Your task to perform on an android device: Search for pizza restaurants on Maps Image 0: 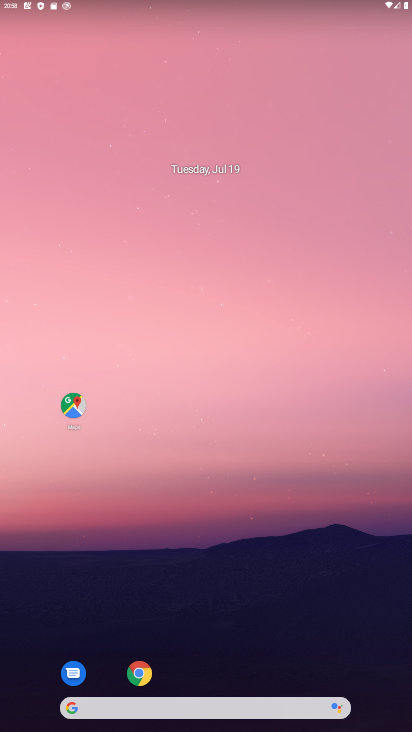
Step 0: click (77, 399)
Your task to perform on an android device: Search for pizza restaurants on Maps Image 1: 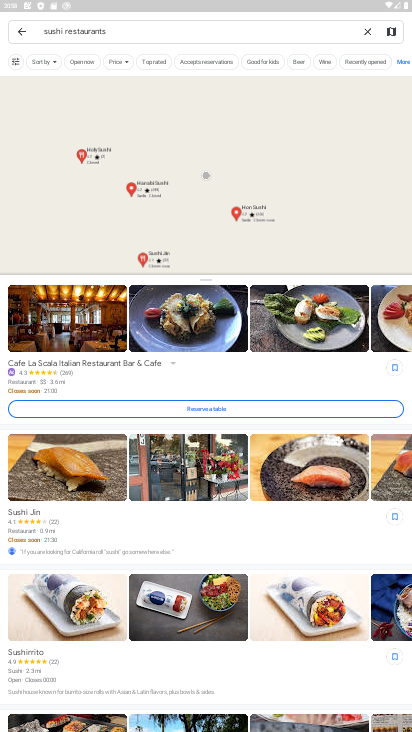
Step 1: click (115, 33)
Your task to perform on an android device: Search for pizza restaurants on Maps Image 2: 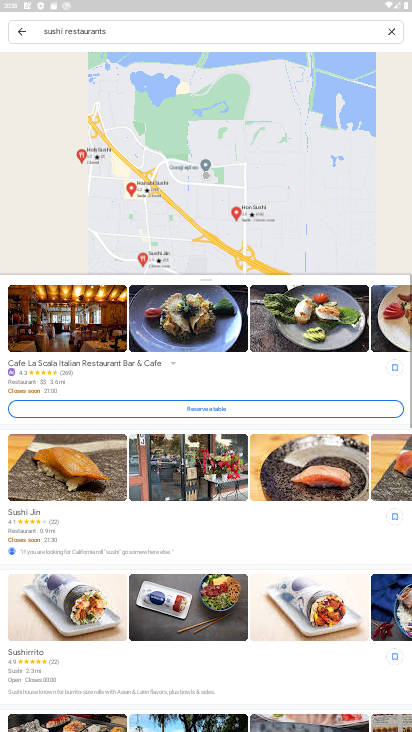
Step 2: click (56, 32)
Your task to perform on an android device: Search for pizza restaurants on Maps Image 3: 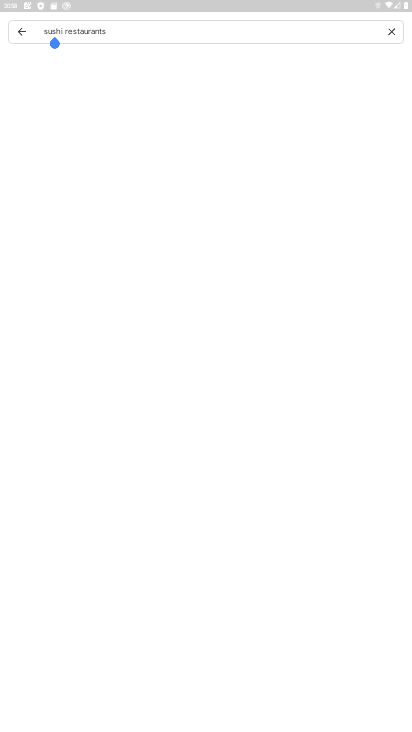
Step 3: click (55, 31)
Your task to perform on an android device: Search for pizza restaurants on Maps Image 4: 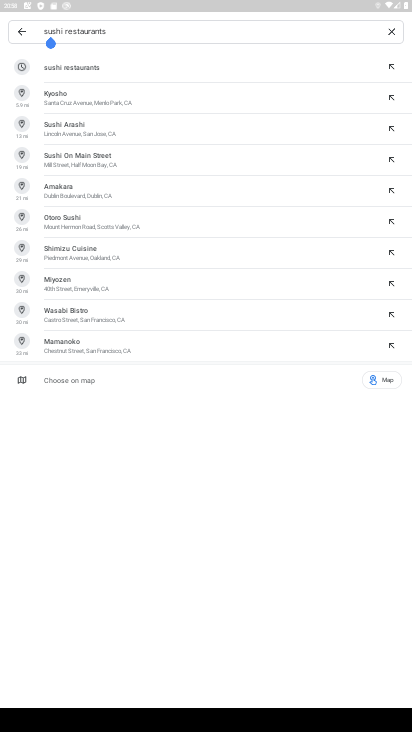
Step 4: click (52, 30)
Your task to perform on an android device: Search for pizza restaurants on Maps Image 5: 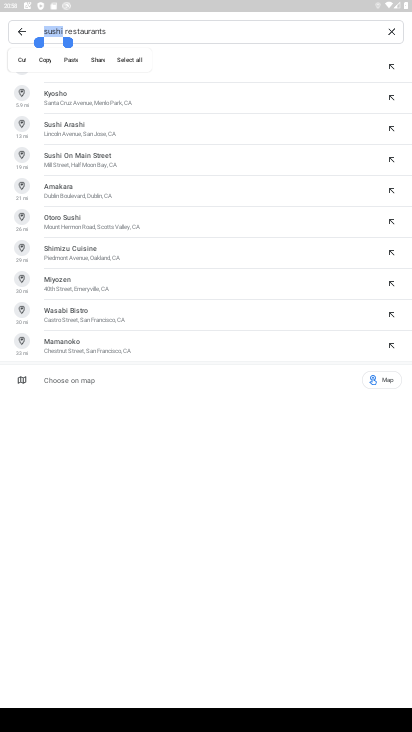
Step 5: type "Pizza"
Your task to perform on an android device: Search for pizza restaurants on Maps Image 6: 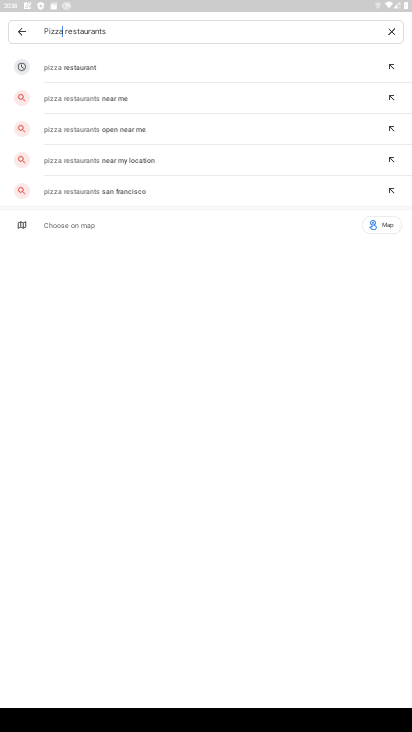
Step 6: click (107, 66)
Your task to perform on an android device: Search for pizza restaurants on Maps Image 7: 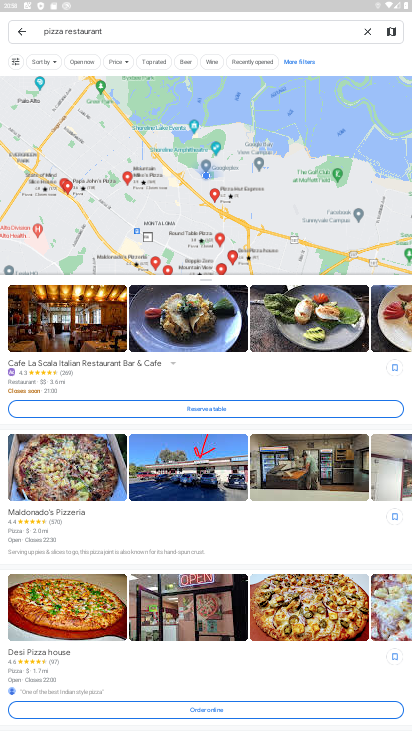
Step 7: task complete